Your task to perform on an android device: Open Reddit.com Image 0: 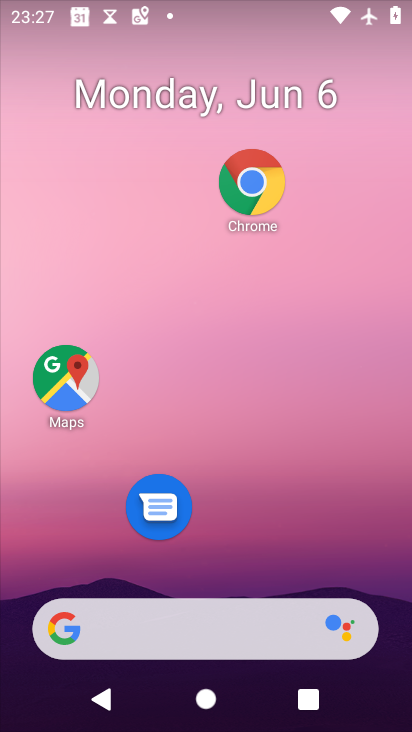
Step 0: click (257, 182)
Your task to perform on an android device: Open Reddit.com Image 1: 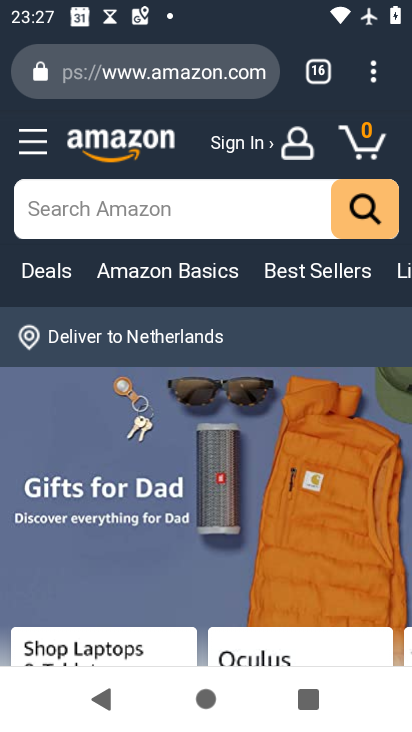
Step 1: click (383, 71)
Your task to perform on an android device: Open Reddit.com Image 2: 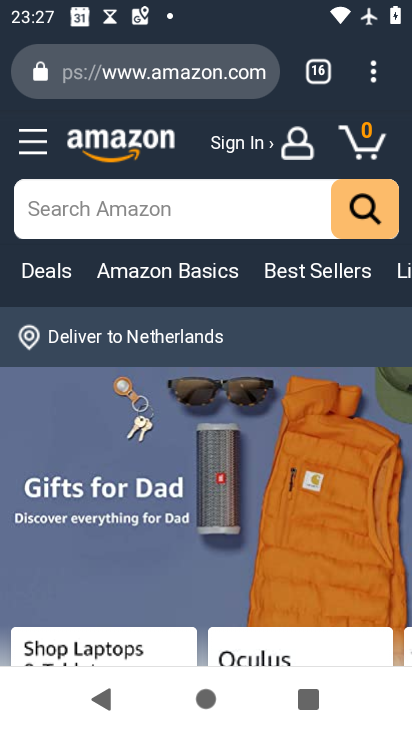
Step 2: click (371, 71)
Your task to perform on an android device: Open Reddit.com Image 3: 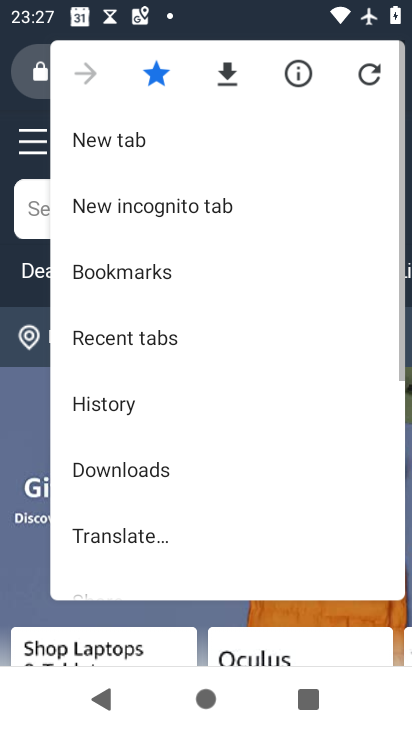
Step 3: click (134, 135)
Your task to perform on an android device: Open Reddit.com Image 4: 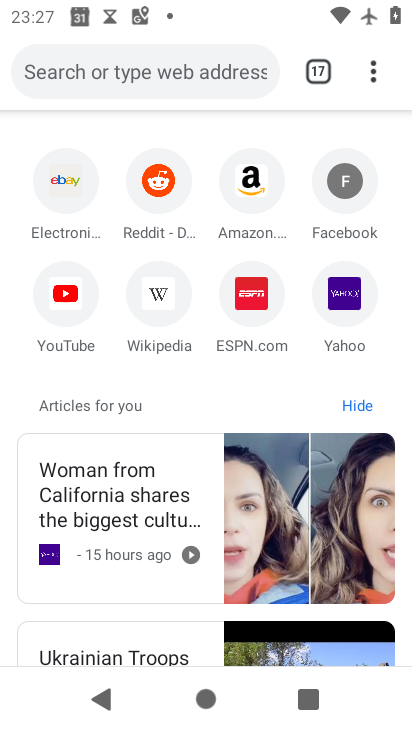
Step 4: click (159, 180)
Your task to perform on an android device: Open Reddit.com Image 5: 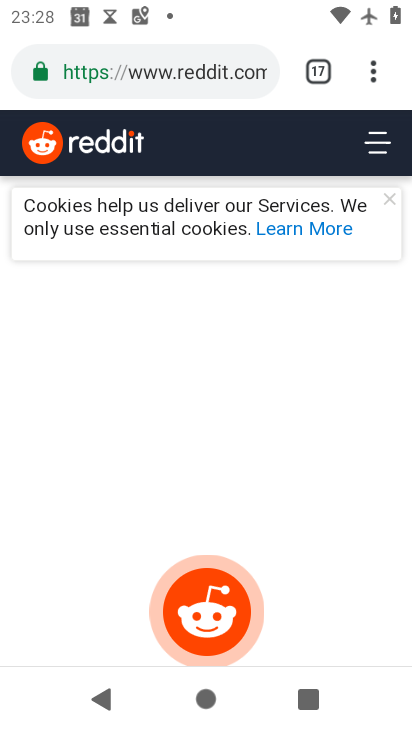
Step 5: task complete